Your task to perform on an android device: Go to Amazon Image 0: 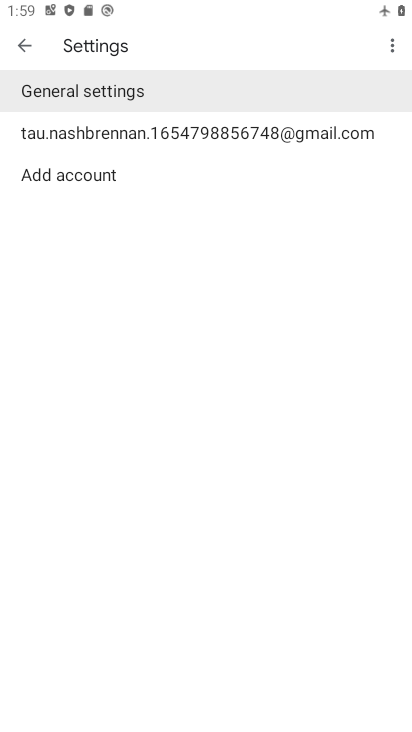
Step 0: press home button
Your task to perform on an android device: Go to Amazon Image 1: 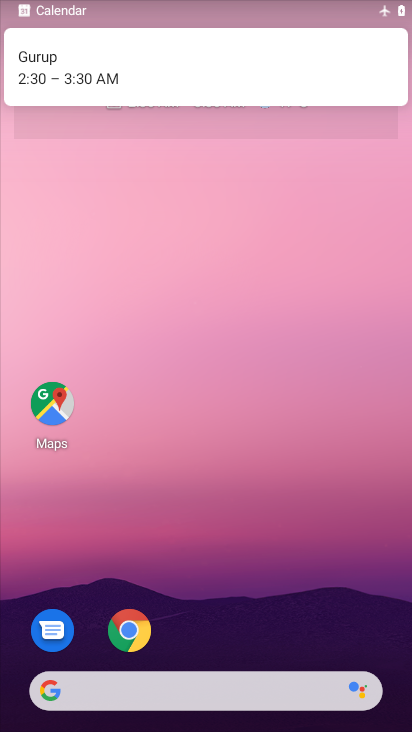
Step 1: click (136, 620)
Your task to perform on an android device: Go to Amazon Image 2: 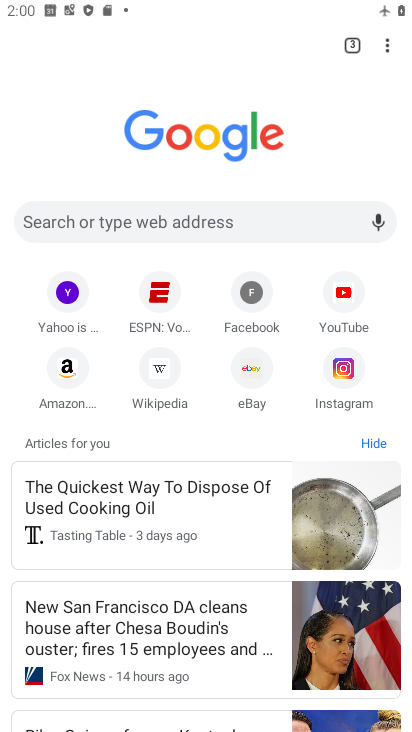
Step 2: click (70, 360)
Your task to perform on an android device: Go to Amazon Image 3: 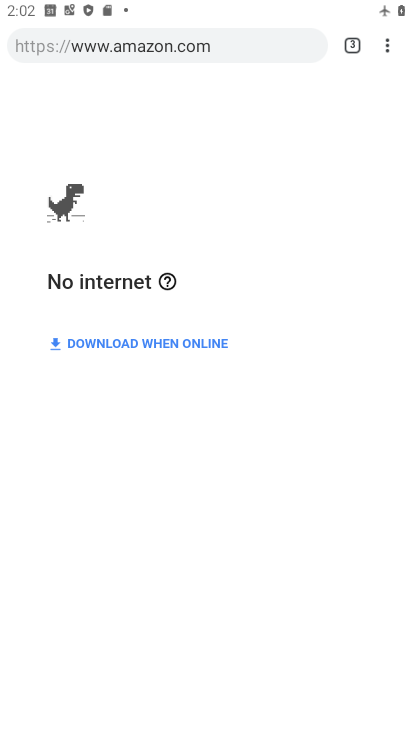
Step 3: task complete